Your task to perform on an android device: toggle wifi Image 0: 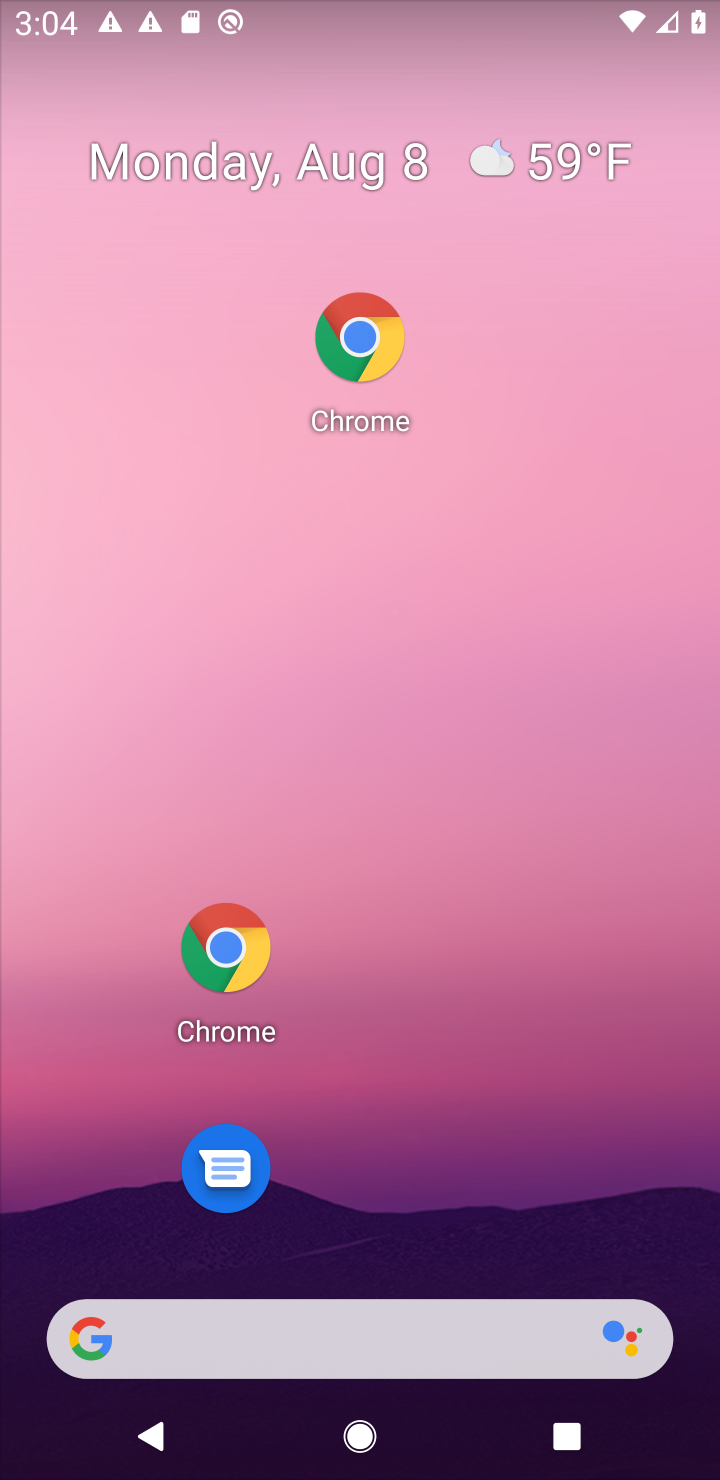
Step 0: drag from (483, 1251) to (515, 133)
Your task to perform on an android device: toggle wifi Image 1: 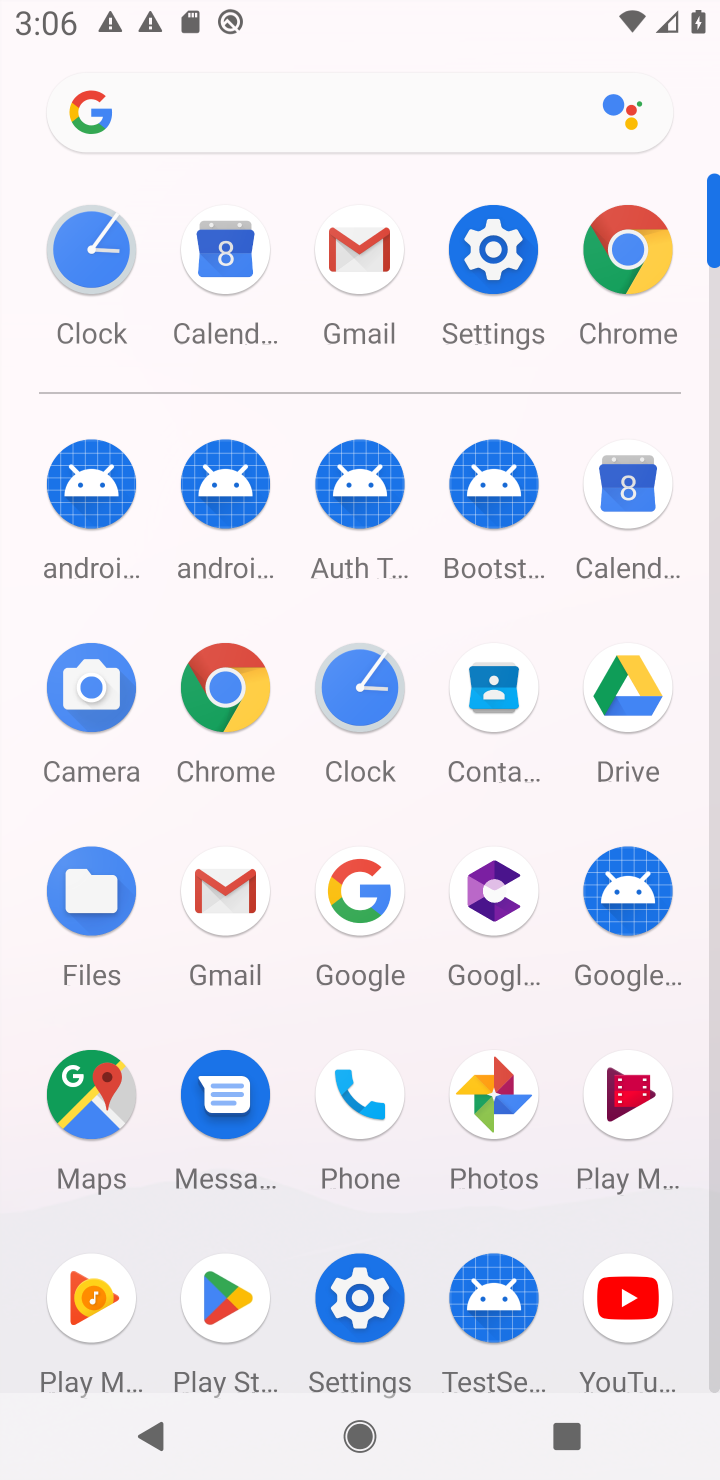
Step 1: click (496, 230)
Your task to perform on an android device: toggle wifi Image 2: 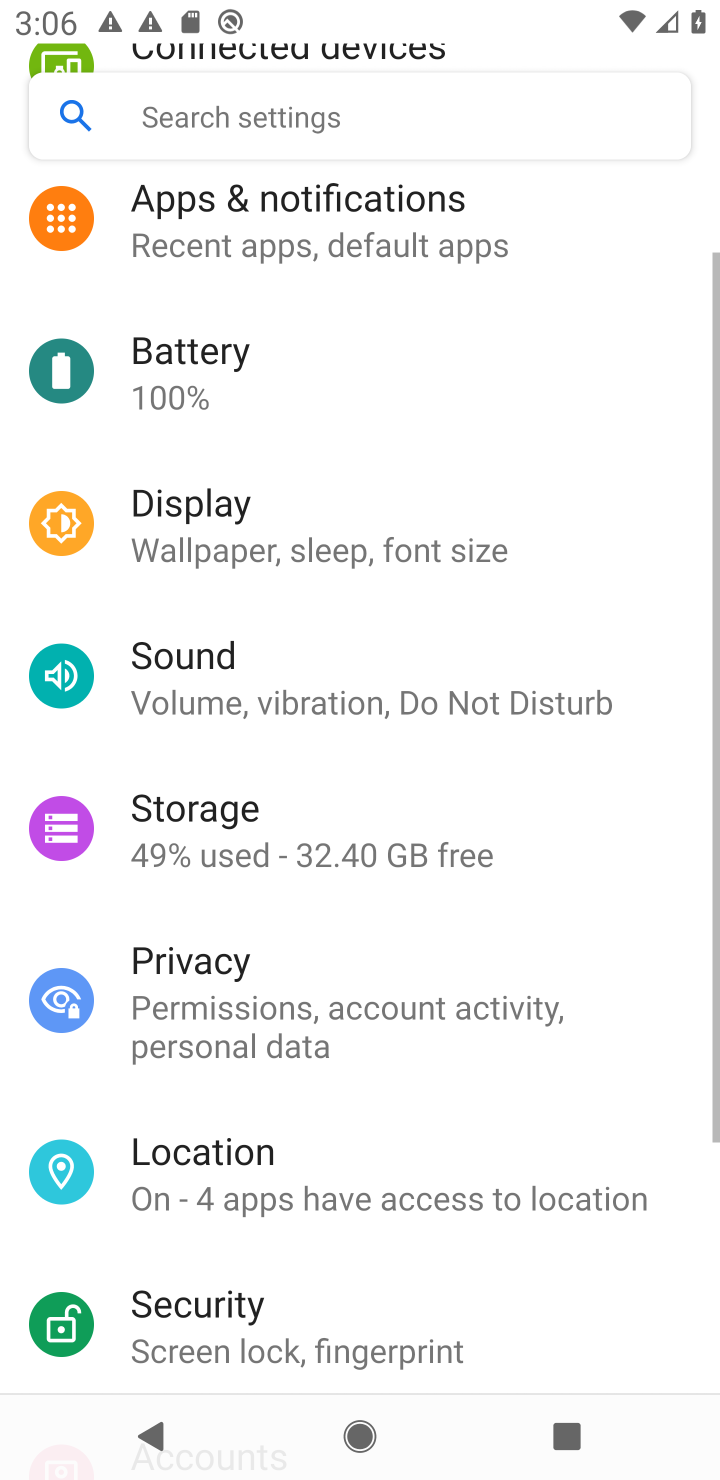
Step 2: task complete